Your task to perform on an android device: set the timer Image 0: 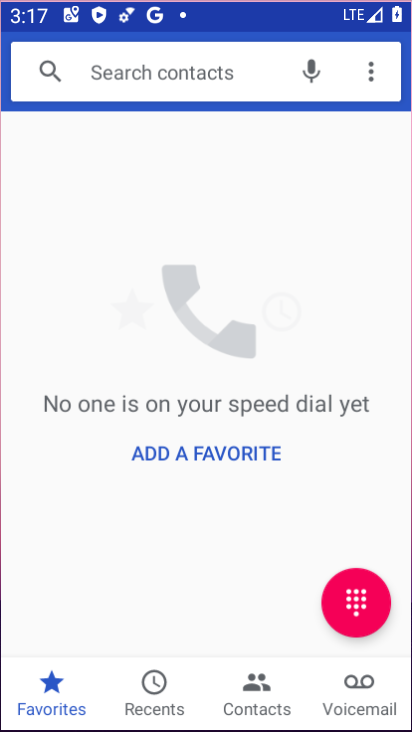
Step 0: drag from (281, 558) to (281, 293)
Your task to perform on an android device: set the timer Image 1: 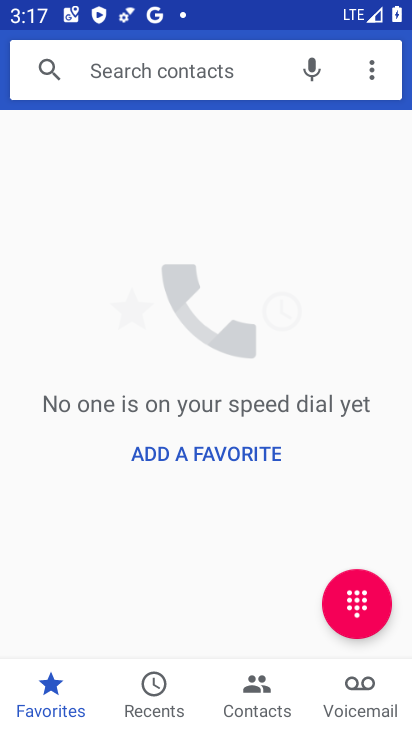
Step 1: press home button
Your task to perform on an android device: set the timer Image 2: 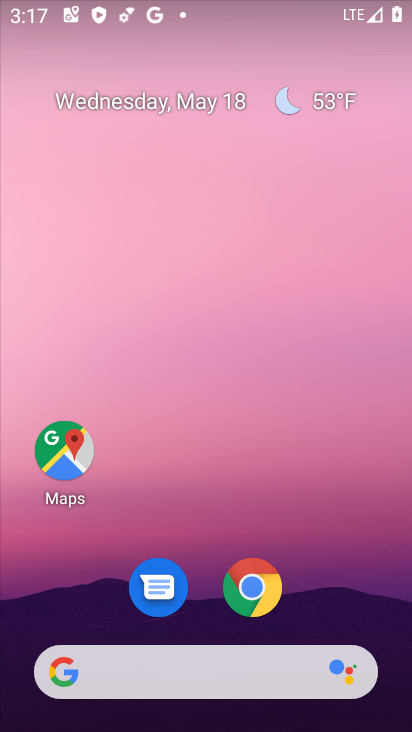
Step 2: drag from (261, 626) to (303, 286)
Your task to perform on an android device: set the timer Image 3: 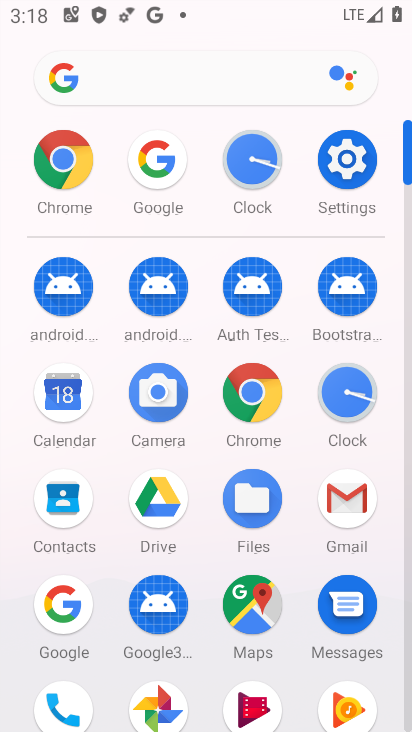
Step 3: drag from (289, 459) to (302, 382)
Your task to perform on an android device: set the timer Image 4: 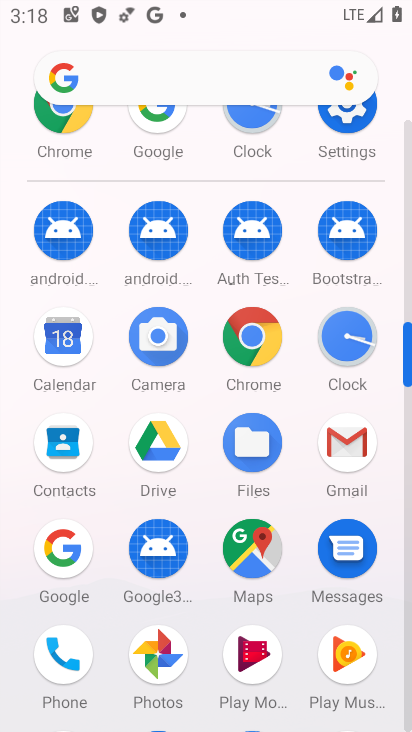
Step 4: click (356, 346)
Your task to perform on an android device: set the timer Image 5: 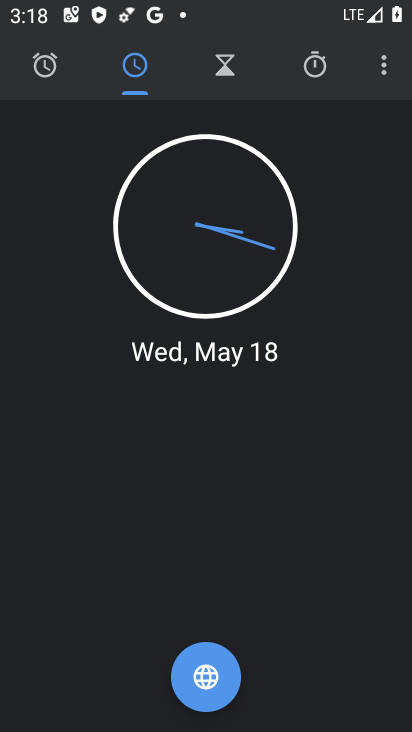
Step 5: click (391, 71)
Your task to perform on an android device: set the timer Image 6: 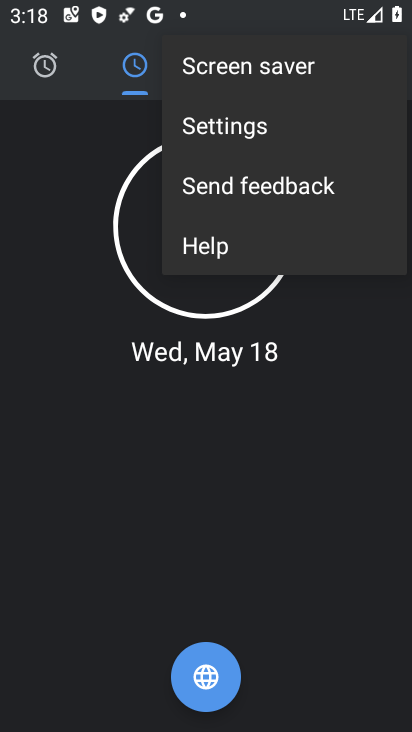
Step 6: click (111, 188)
Your task to perform on an android device: set the timer Image 7: 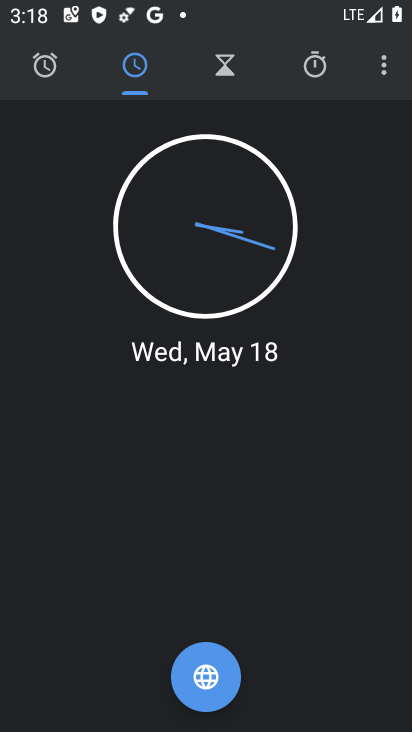
Step 7: click (241, 78)
Your task to perform on an android device: set the timer Image 8: 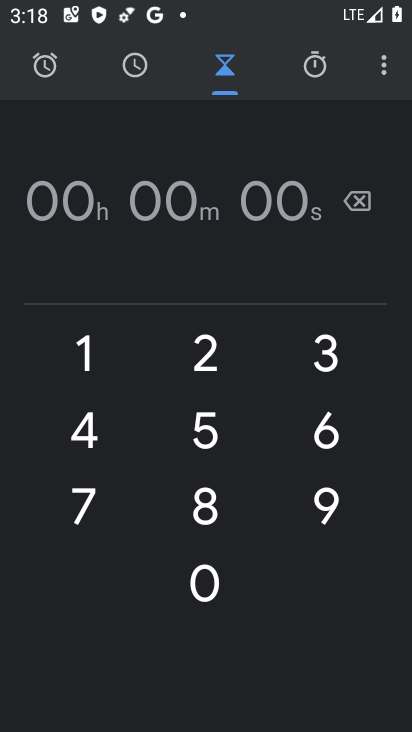
Step 8: click (197, 345)
Your task to perform on an android device: set the timer Image 9: 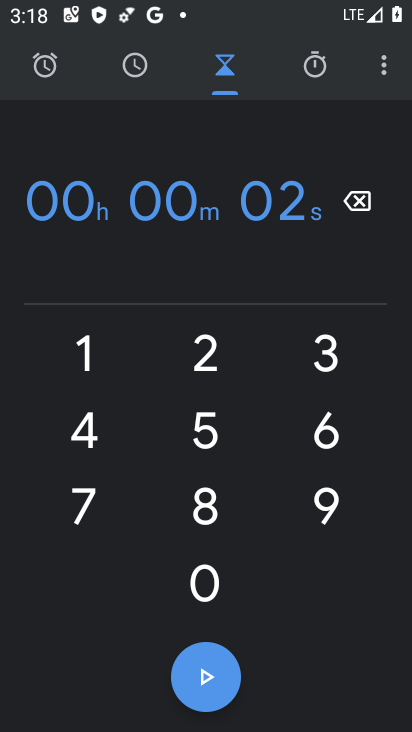
Step 9: click (196, 694)
Your task to perform on an android device: set the timer Image 10: 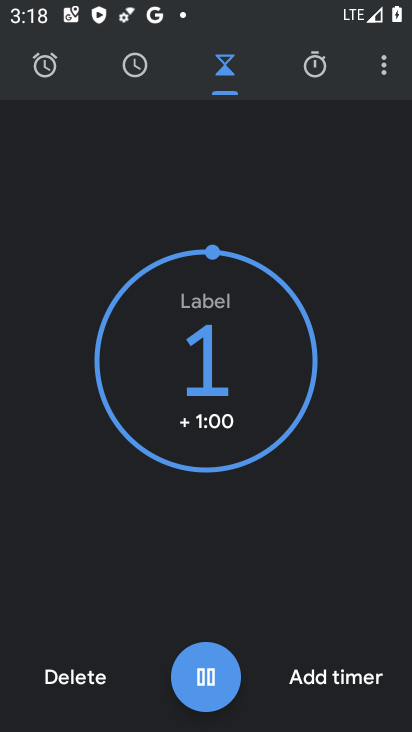
Step 10: task complete